Your task to perform on an android device: Open Chrome and go to the settings page Image 0: 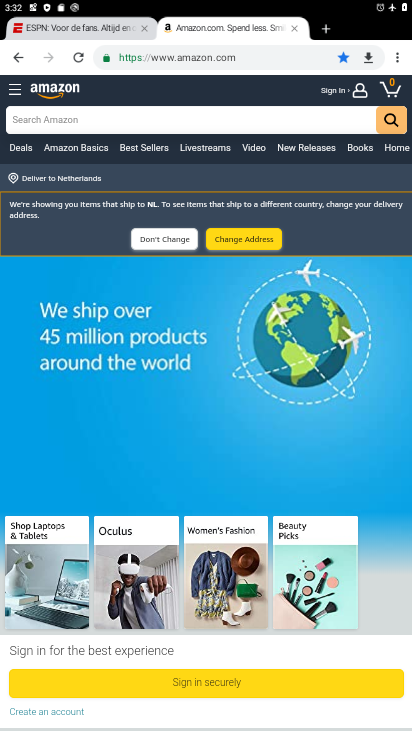
Step 0: click (400, 63)
Your task to perform on an android device: Open Chrome and go to the settings page Image 1: 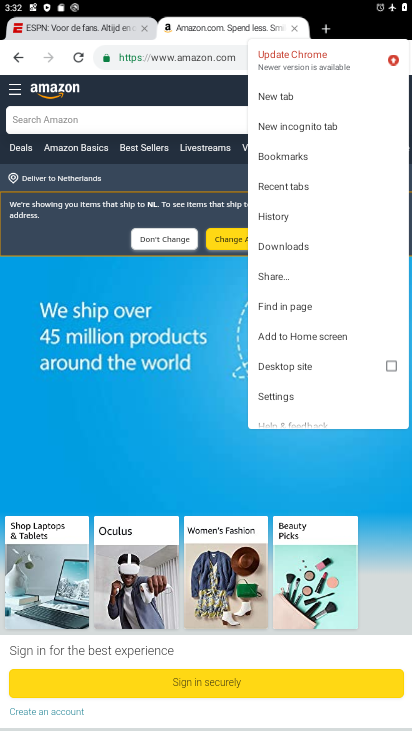
Step 1: click (318, 397)
Your task to perform on an android device: Open Chrome and go to the settings page Image 2: 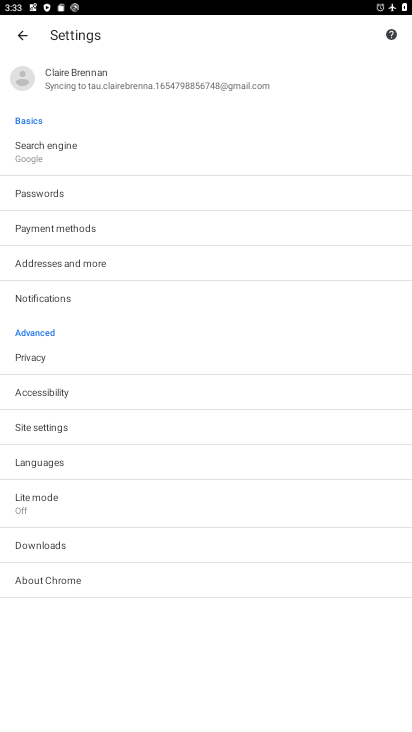
Step 2: task complete